Your task to perform on an android device: Is it going to rain today? Image 0: 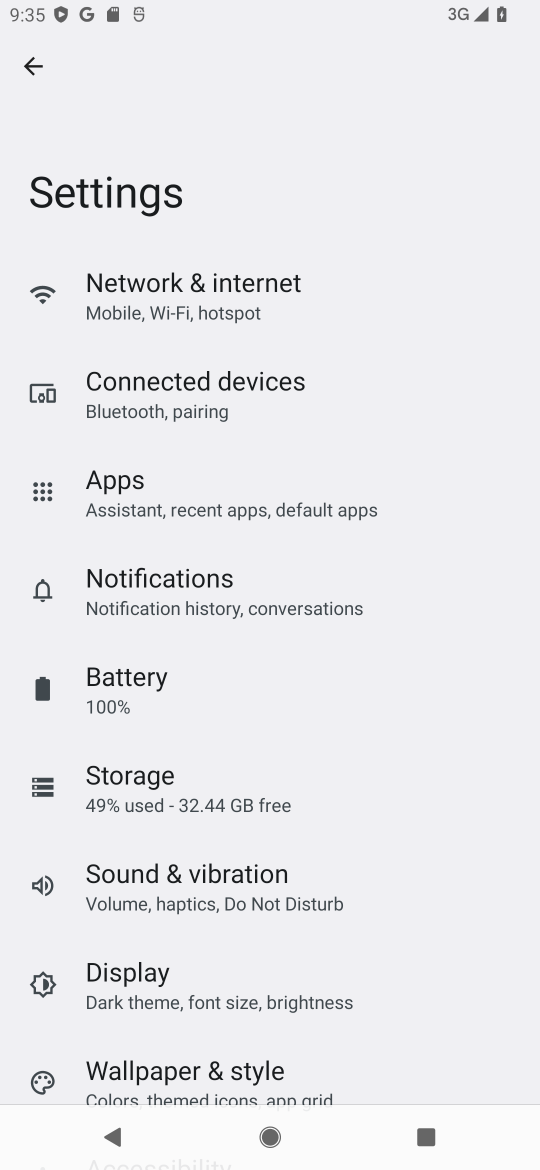
Step 0: press home button
Your task to perform on an android device: Is it going to rain today? Image 1: 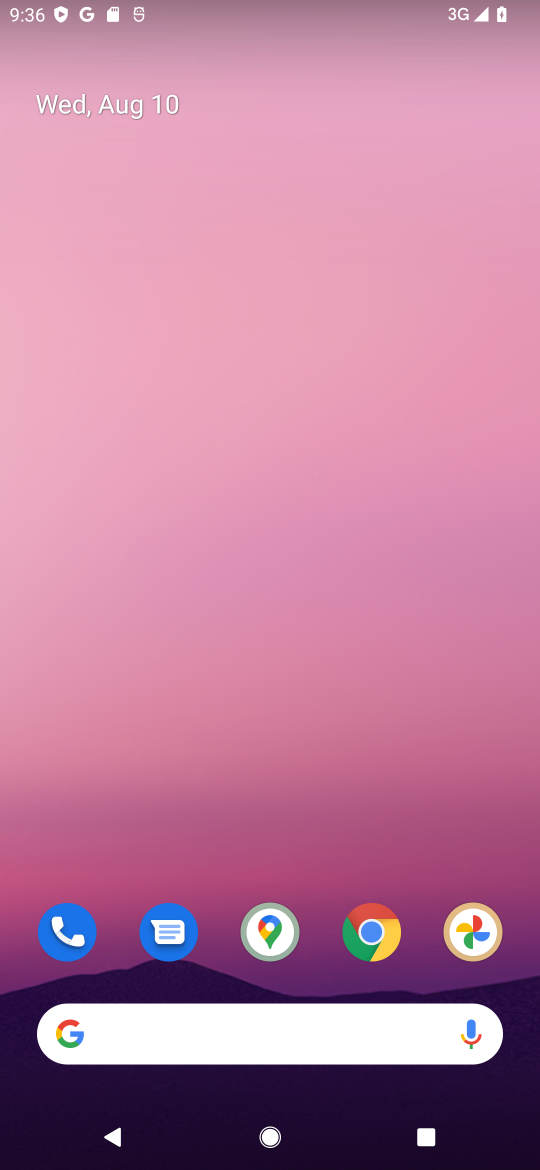
Step 1: click (296, 1053)
Your task to perform on an android device: Is it going to rain today? Image 2: 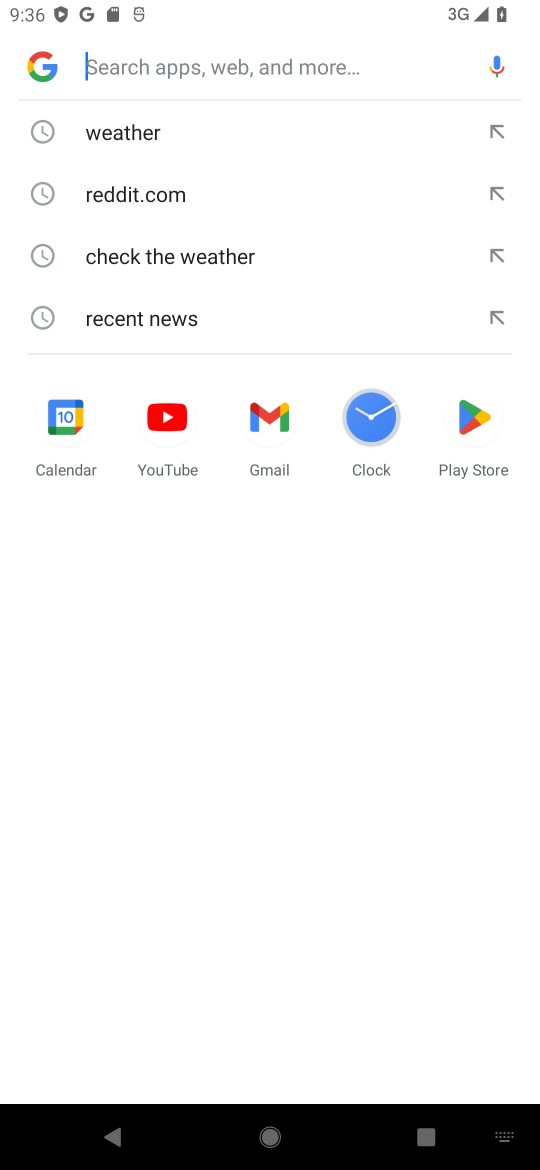
Step 2: click (141, 119)
Your task to perform on an android device: Is it going to rain today? Image 3: 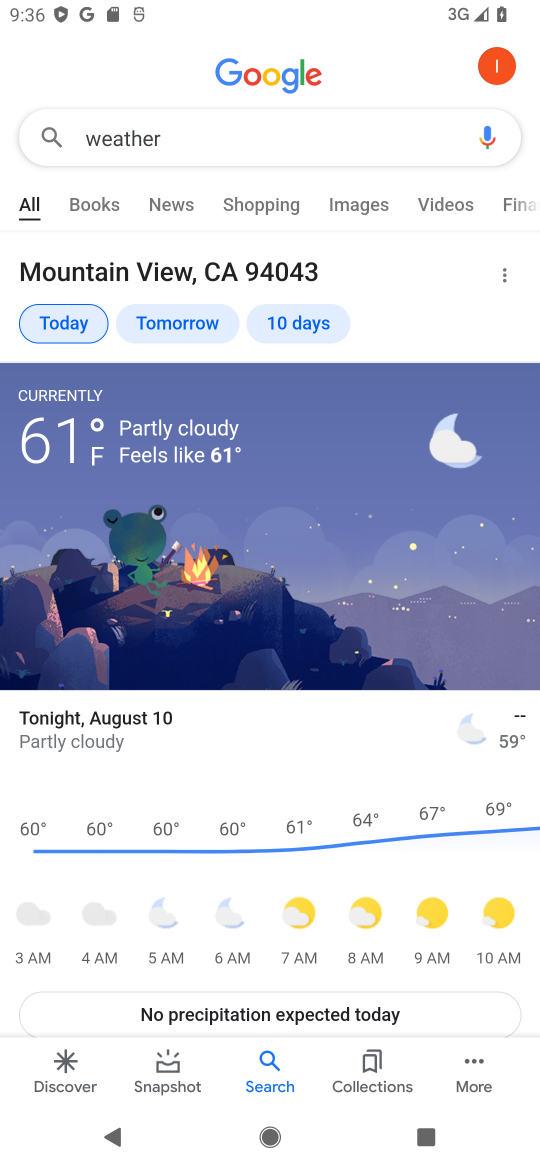
Step 3: task complete